Your task to perform on an android device: What is the news today? Image 0: 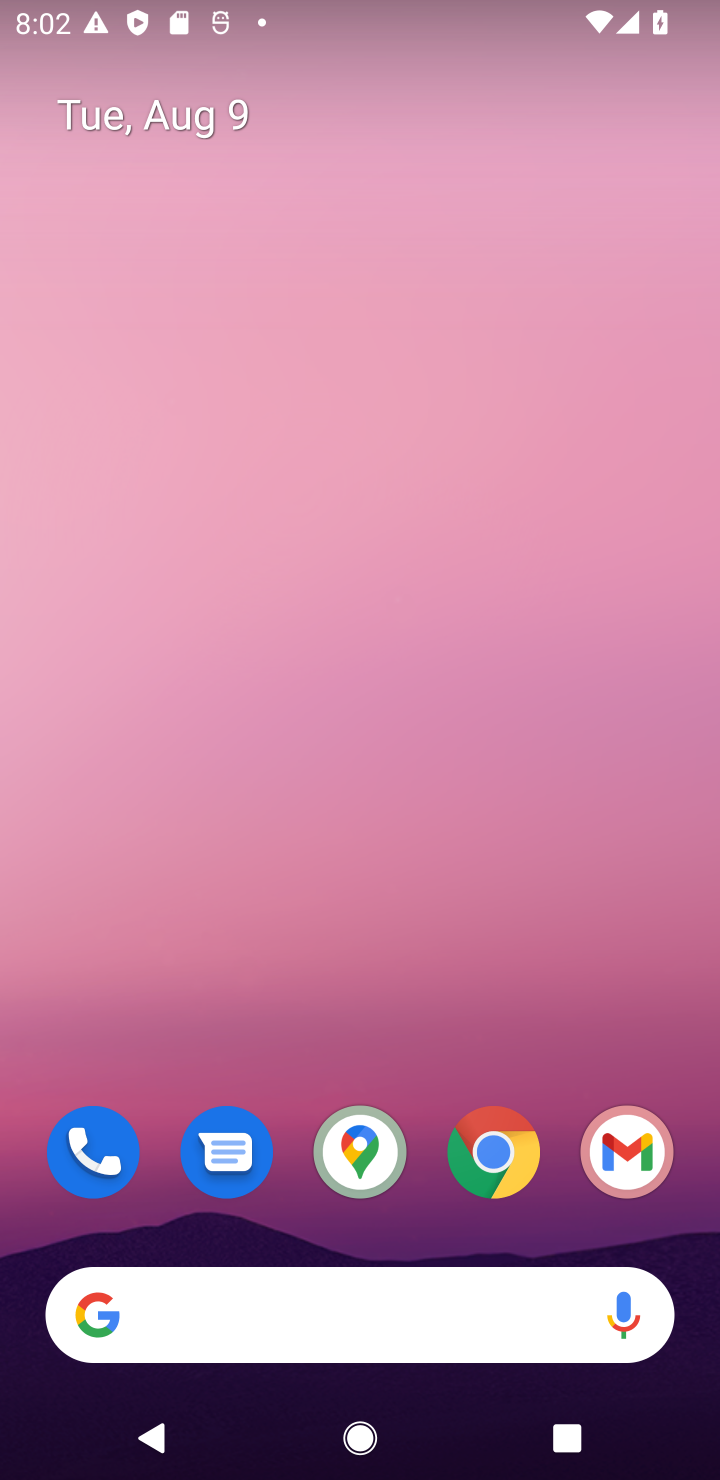
Step 0: click (284, 1295)
Your task to perform on an android device: What is the news today? Image 1: 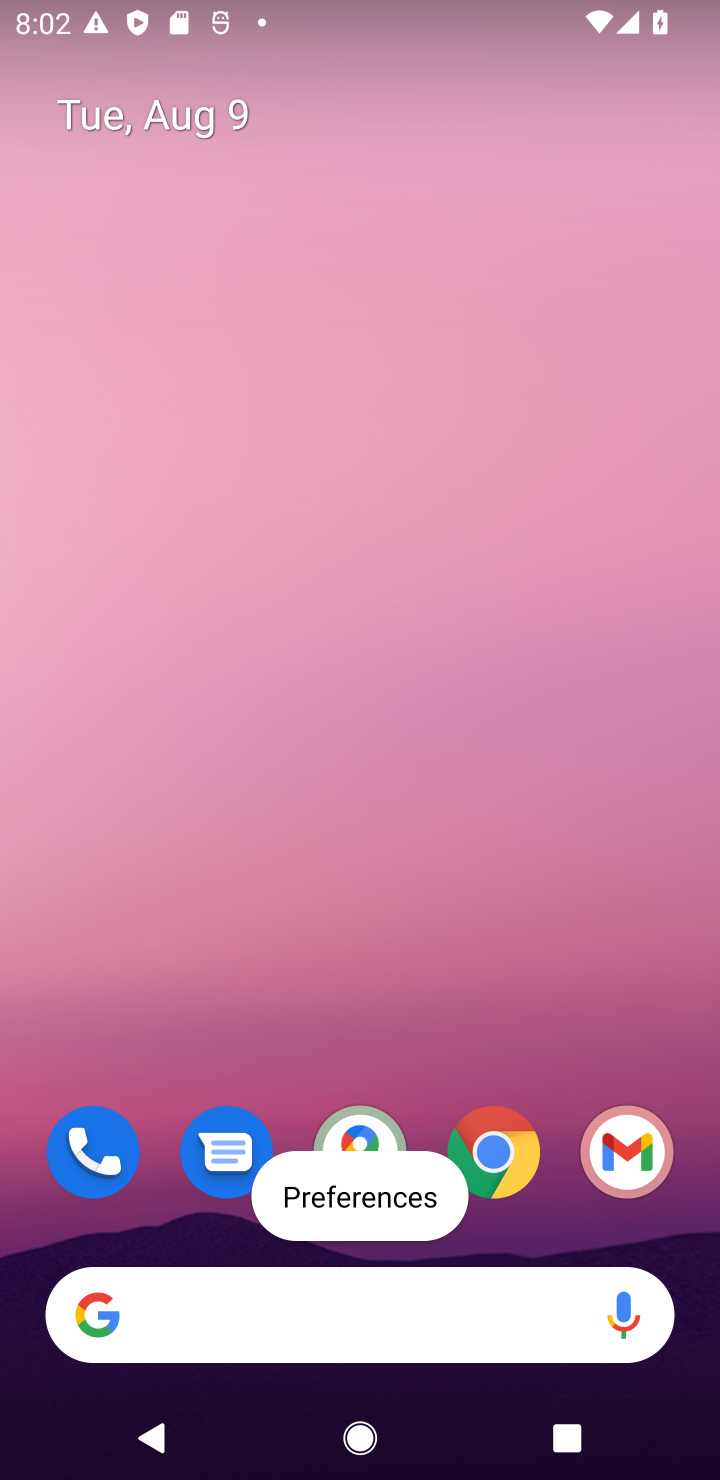
Step 1: click (284, 1295)
Your task to perform on an android device: What is the news today? Image 2: 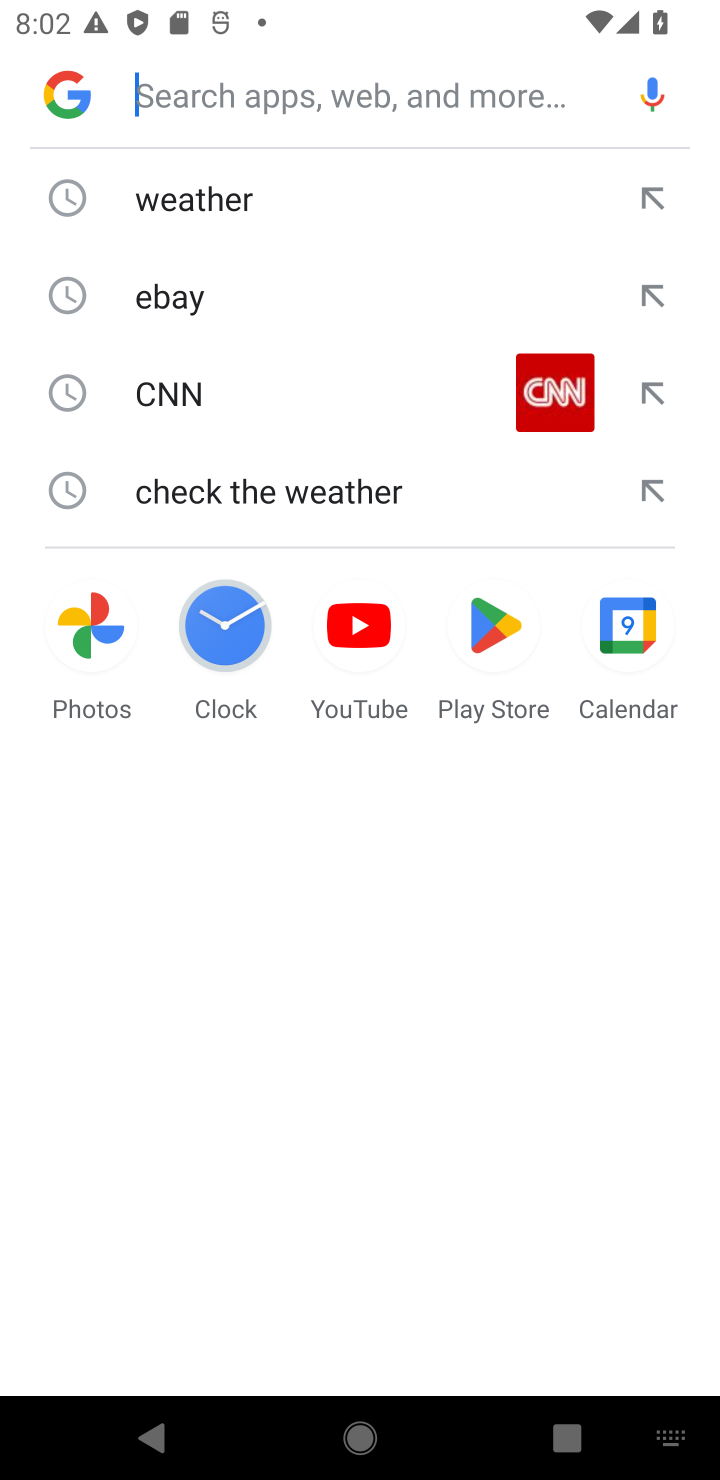
Step 2: click (284, 1295)
Your task to perform on an android device: What is the news today? Image 3: 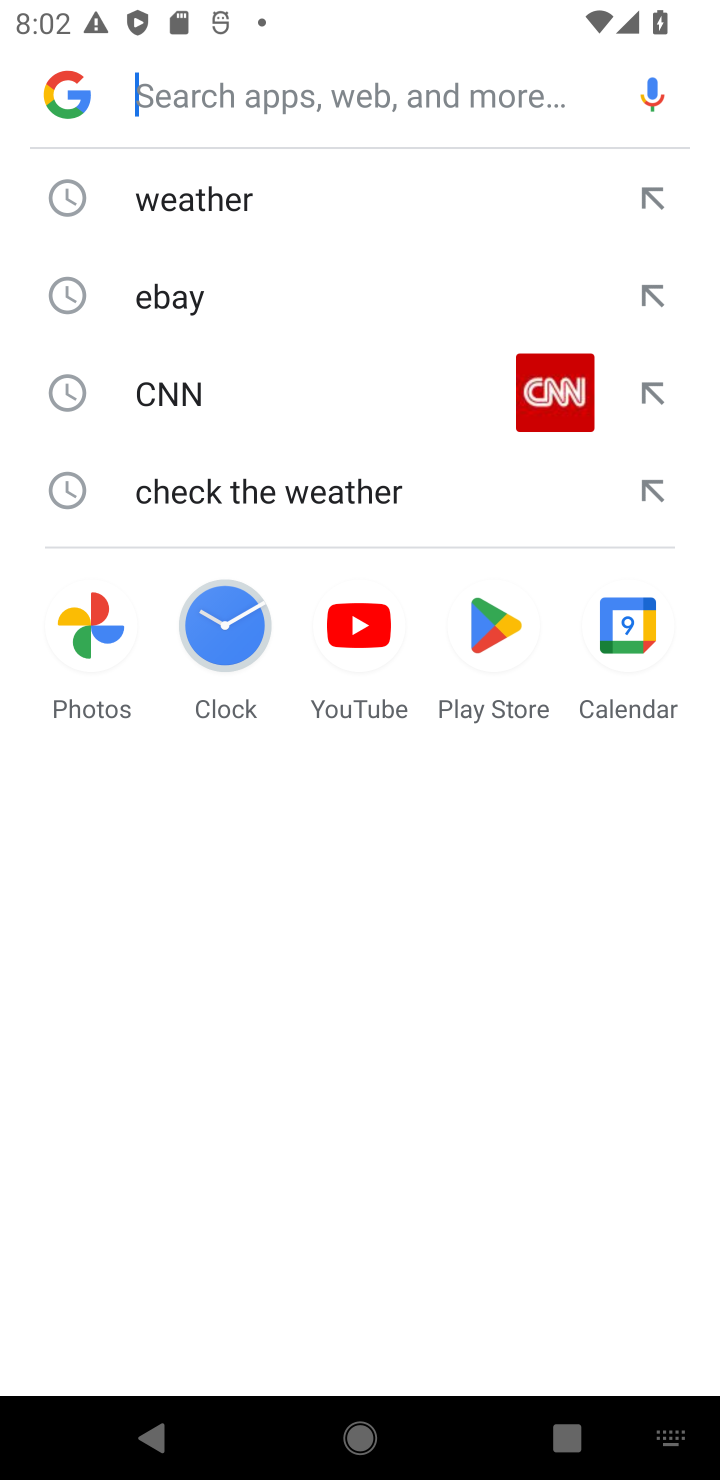
Step 3: click (79, 101)
Your task to perform on an android device: What is the news today? Image 4: 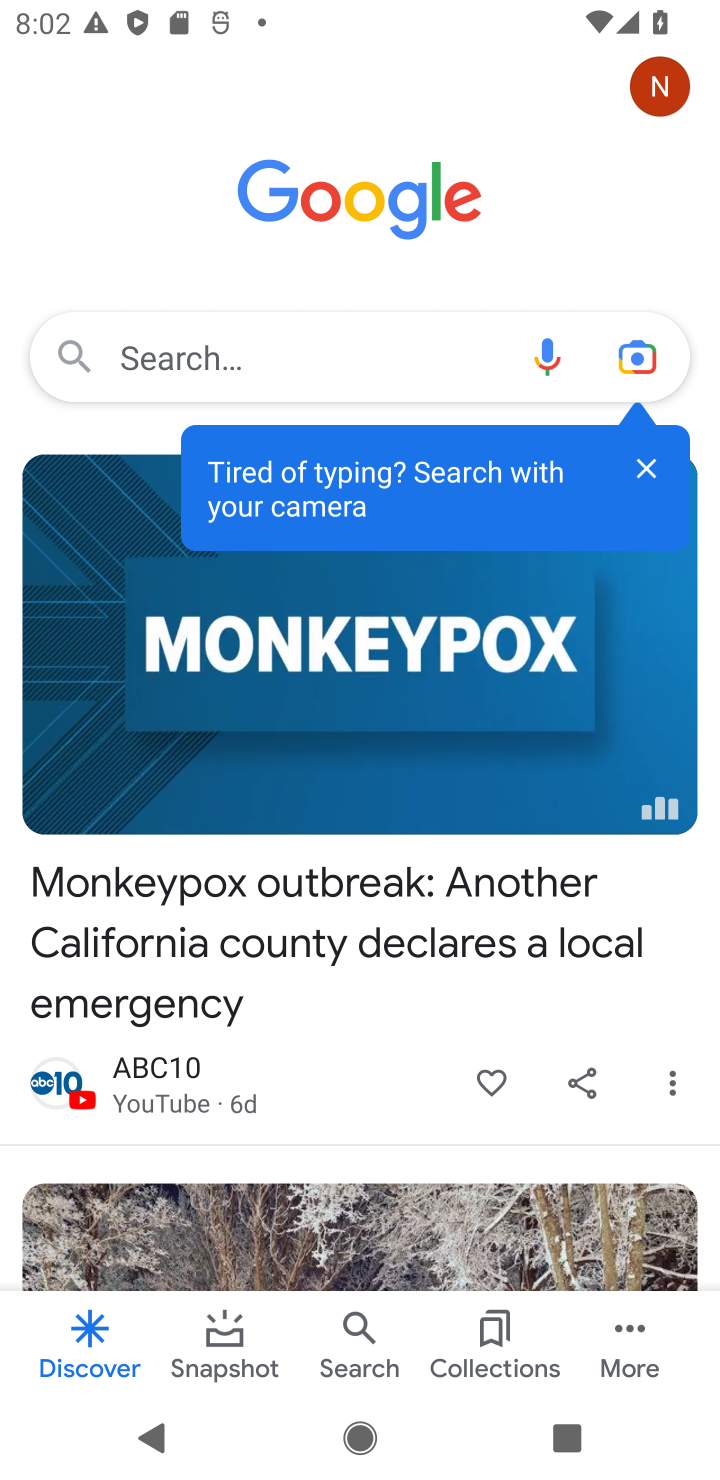
Step 4: task complete